Your task to perform on an android device: Open the Play Movies app and select the watchlist tab. Image 0: 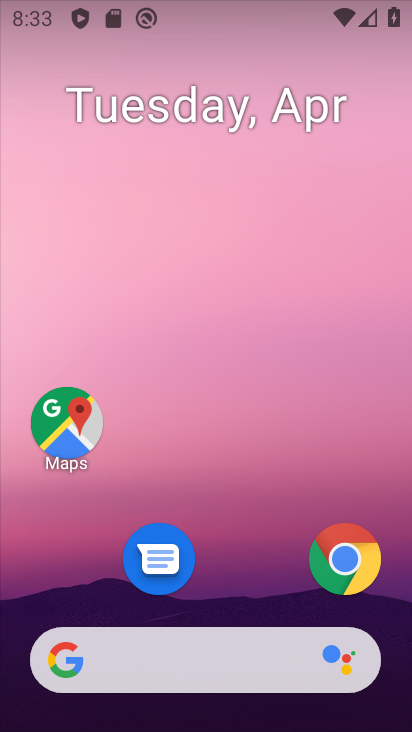
Step 0: drag from (285, 700) to (297, 45)
Your task to perform on an android device: Open the Play Movies app and select the watchlist tab. Image 1: 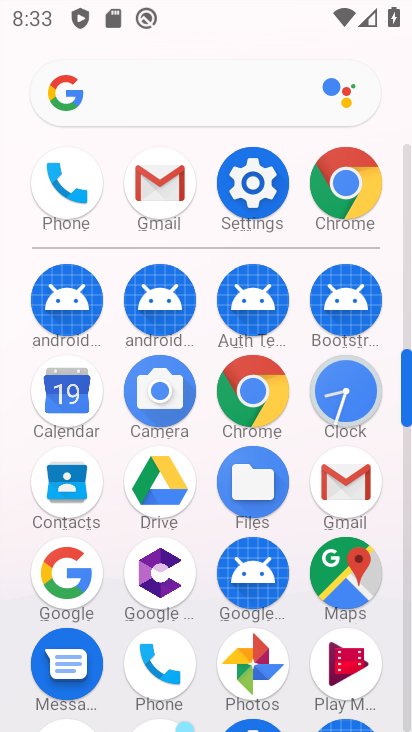
Step 1: drag from (204, 539) to (182, 102)
Your task to perform on an android device: Open the Play Movies app and select the watchlist tab. Image 2: 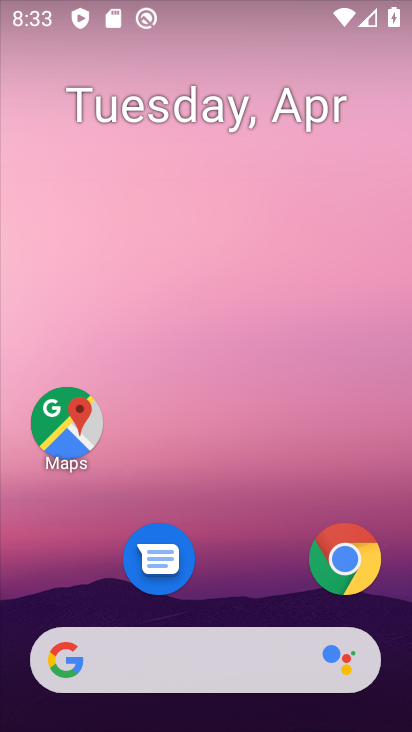
Step 2: drag from (282, 698) to (297, 3)
Your task to perform on an android device: Open the Play Movies app and select the watchlist tab. Image 3: 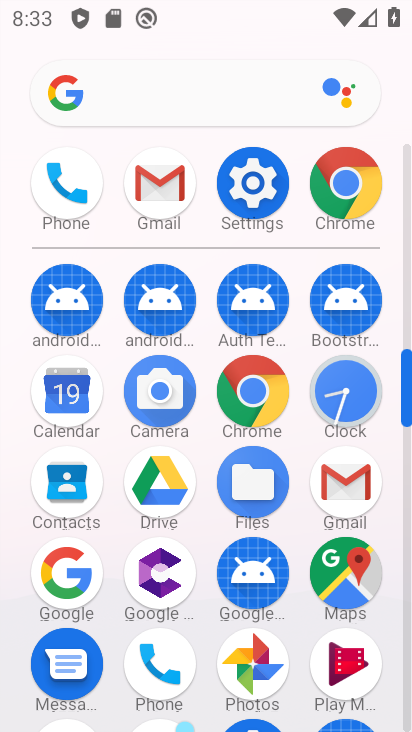
Step 3: drag from (205, 531) to (205, 464)
Your task to perform on an android device: Open the Play Movies app and select the watchlist tab. Image 4: 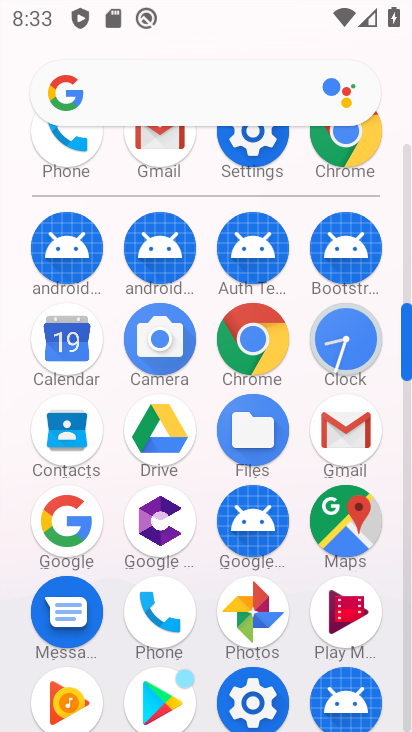
Step 4: click (331, 605)
Your task to perform on an android device: Open the Play Movies app and select the watchlist tab. Image 5: 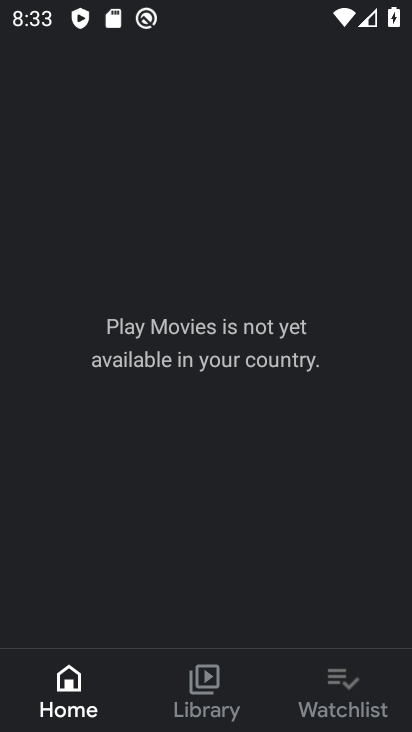
Step 5: click (344, 705)
Your task to perform on an android device: Open the Play Movies app and select the watchlist tab. Image 6: 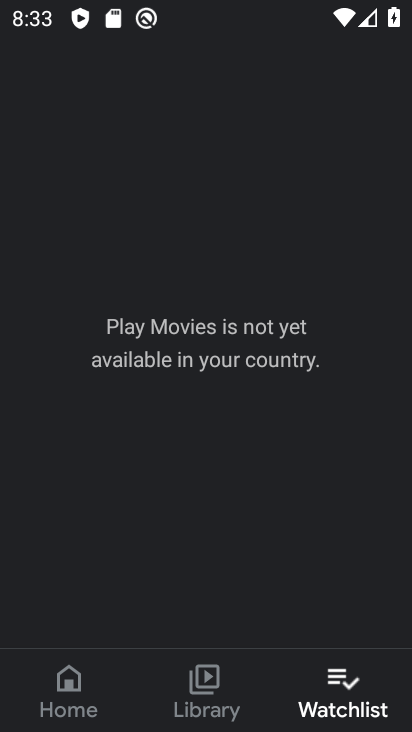
Step 6: task complete